Your task to perform on an android device: Open sound settings Image 0: 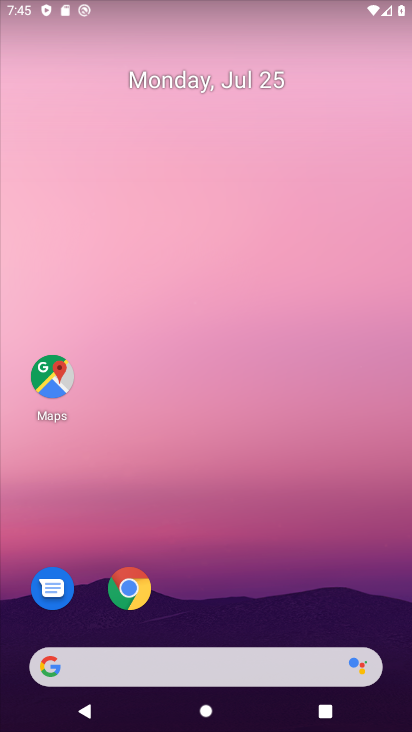
Step 0: drag from (219, 566) to (177, 235)
Your task to perform on an android device: Open sound settings Image 1: 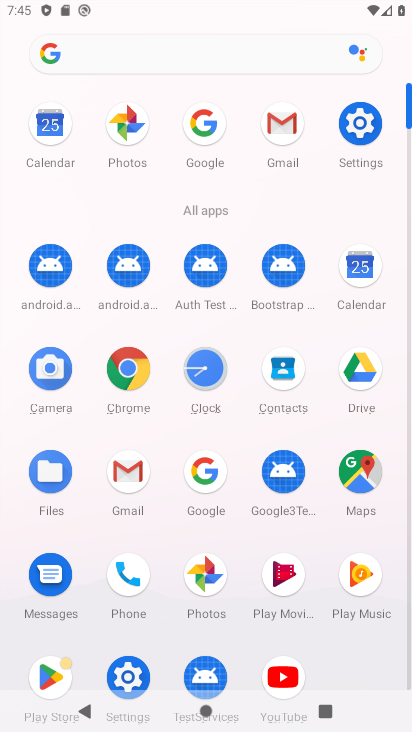
Step 1: click (338, 134)
Your task to perform on an android device: Open sound settings Image 2: 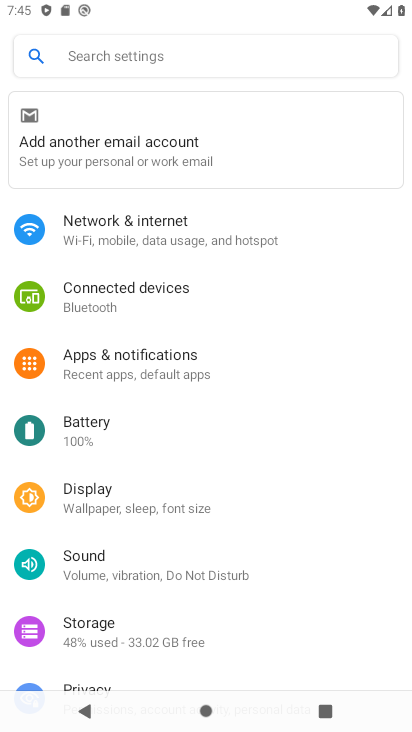
Step 2: click (96, 566)
Your task to perform on an android device: Open sound settings Image 3: 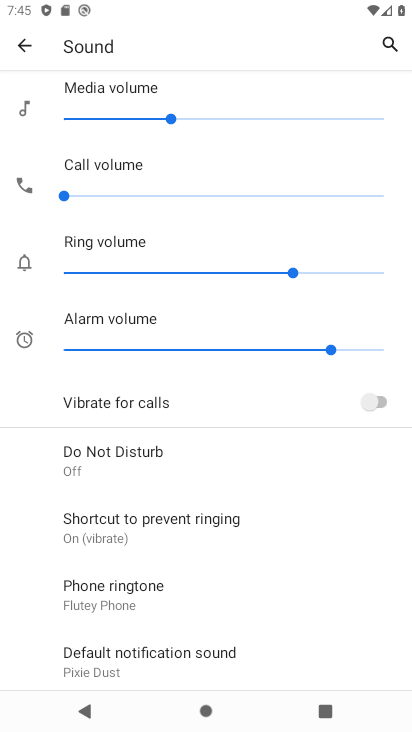
Step 3: drag from (204, 653) to (259, 272)
Your task to perform on an android device: Open sound settings Image 4: 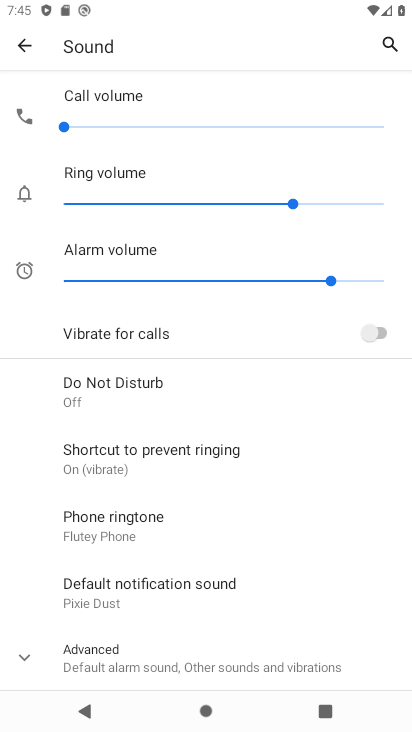
Step 4: click (120, 658)
Your task to perform on an android device: Open sound settings Image 5: 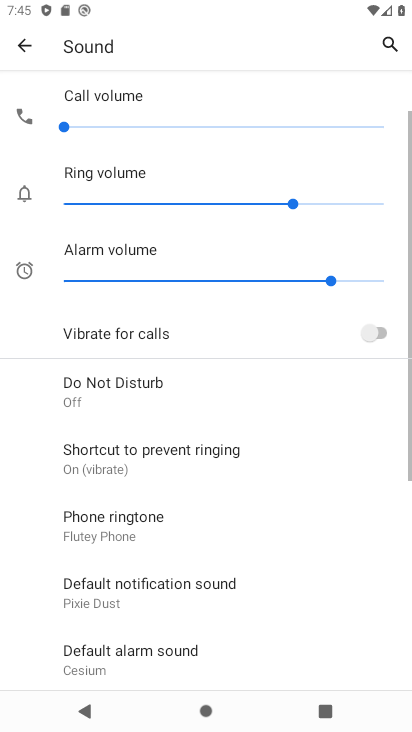
Step 5: task complete